Your task to perform on an android device: turn off priority inbox in the gmail app Image 0: 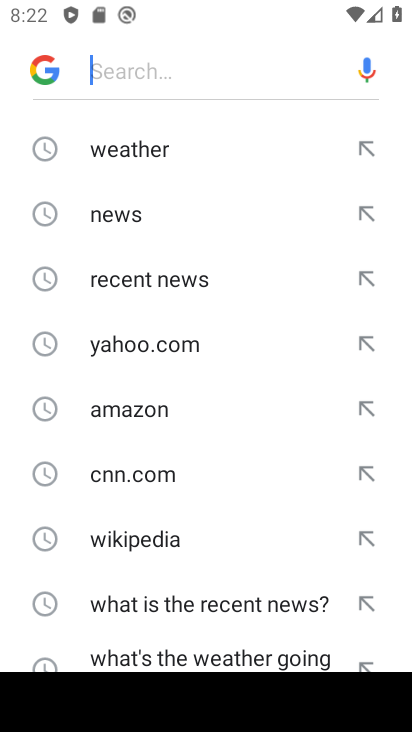
Step 0: press home button
Your task to perform on an android device: turn off priority inbox in the gmail app Image 1: 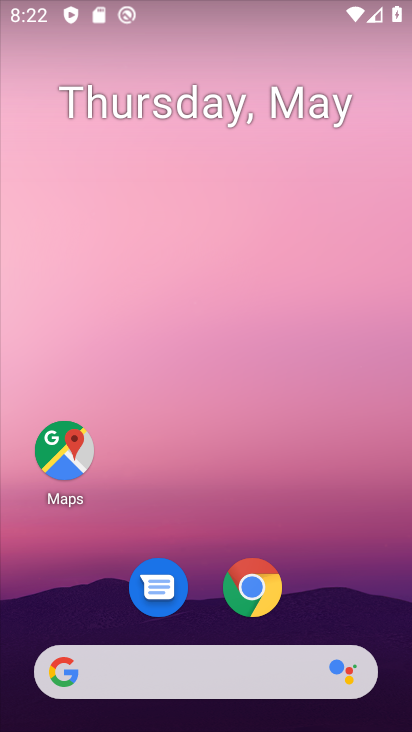
Step 1: drag from (127, 731) to (154, 30)
Your task to perform on an android device: turn off priority inbox in the gmail app Image 2: 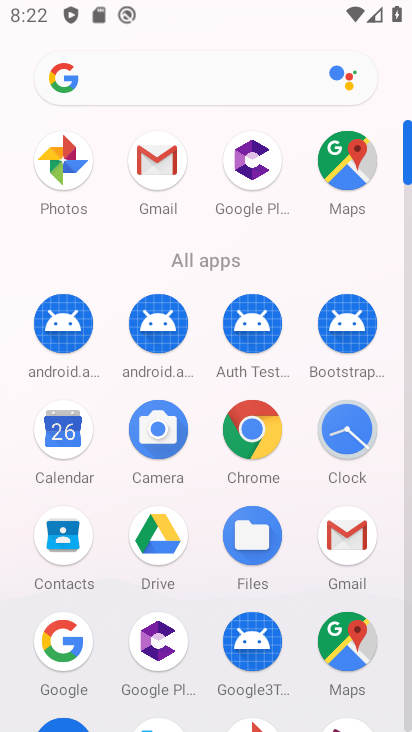
Step 2: click (348, 538)
Your task to perform on an android device: turn off priority inbox in the gmail app Image 3: 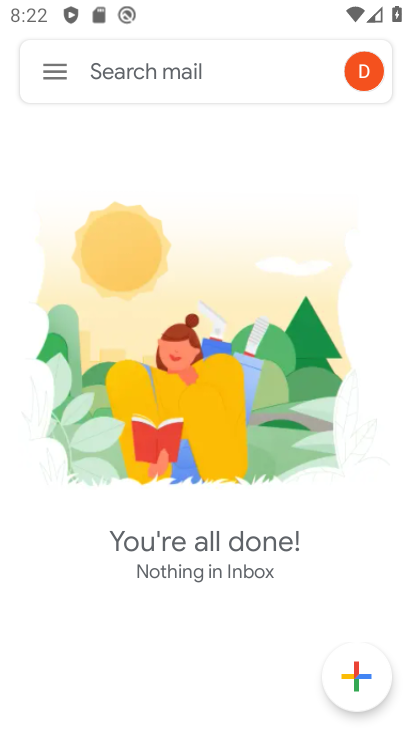
Step 3: click (63, 77)
Your task to perform on an android device: turn off priority inbox in the gmail app Image 4: 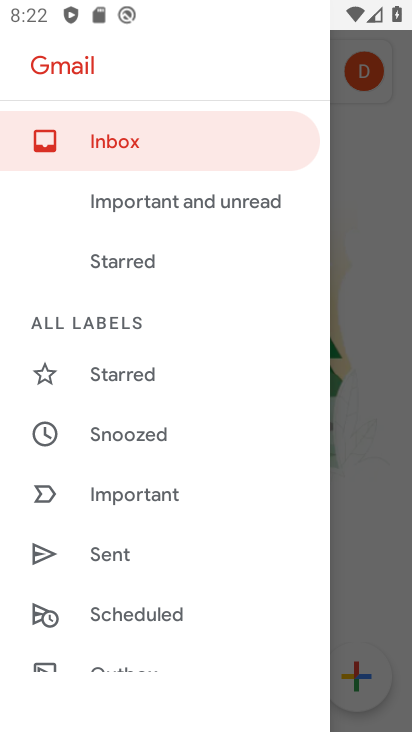
Step 4: drag from (219, 627) to (202, 215)
Your task to perform on an android device: turn off priority inbox in the gmail app Image 5: 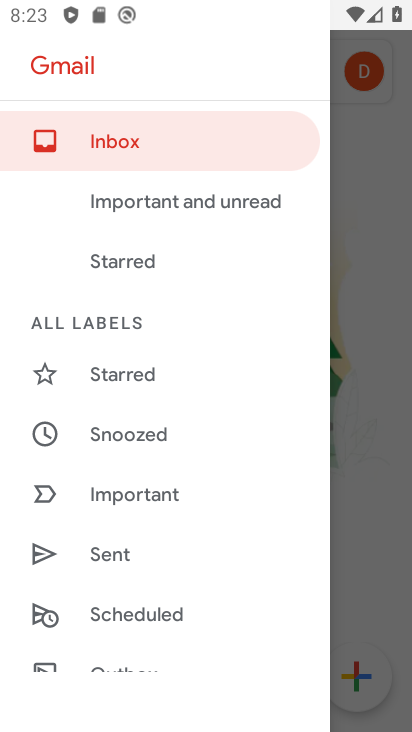
Step 5: drag from (85, 634) to (120, 130)
Your task to perform on an android device: turn off priority inbox in the gmail app Image 6: 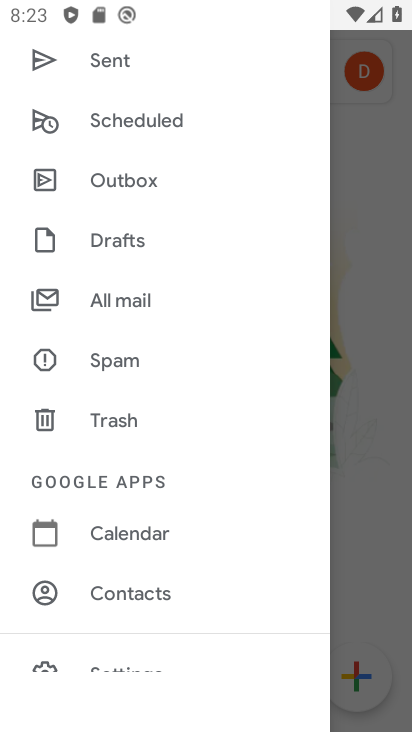
Step 6: drag from (230, 632) to (202, 382)
Your task to perform on an android device: turn off priority inbox in the gmail app Image 7: 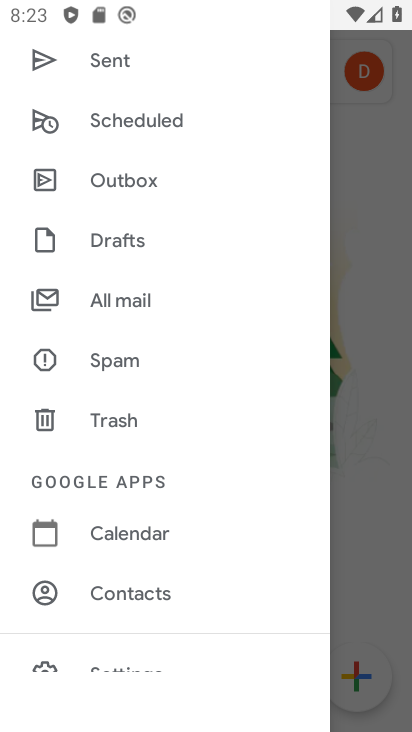
Step 7: drag from (71, 628) to (71, 322)
Your task to perform on an android device: turn off priority inbox in the gmail app Image 8: 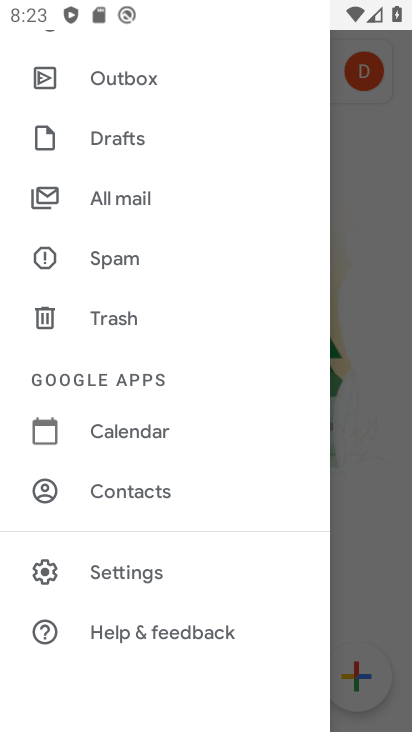
Step 8: click (123, 582)
Your task to perform on an android device: turn off priority inbox in the gmail app Image 9: 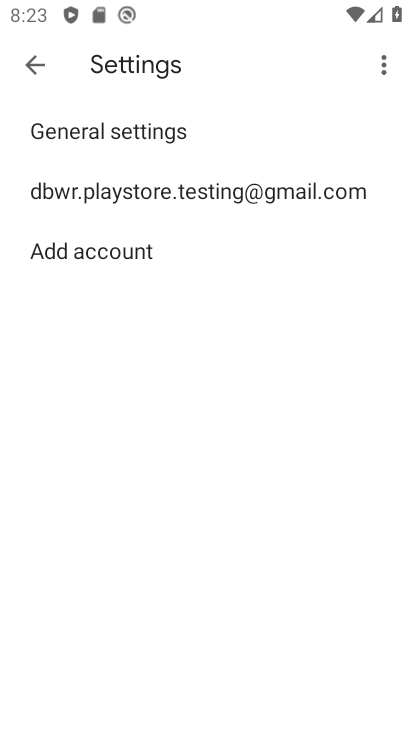
Step 9: click (255, 194)
Your task to perform on an android device: turn off priority inbox in the gmail app Image 10: 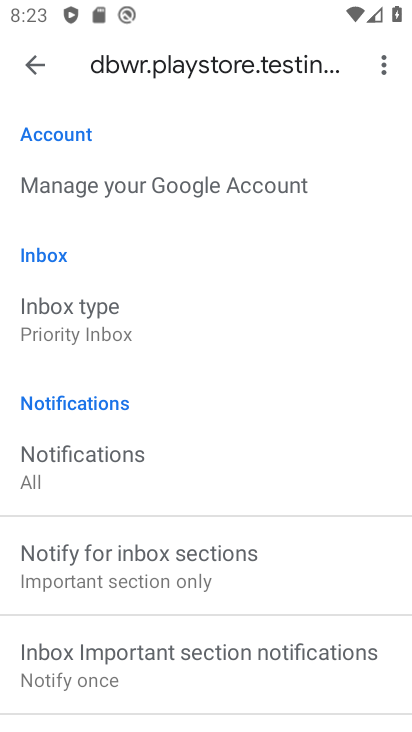
Step 10: click (129, 328)
Your task to perform on an android device: turn off priority inbox in the gmail app Image 11: 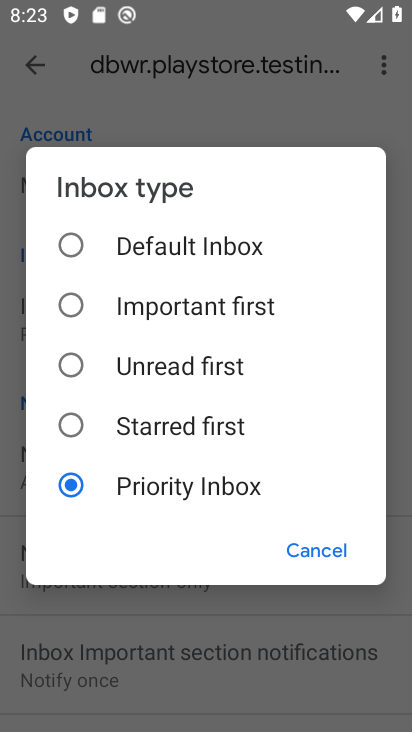
Step 11: click (139, 249)
Your task to perform on an android device: turn off priority inbox in the gmail app Image 12: 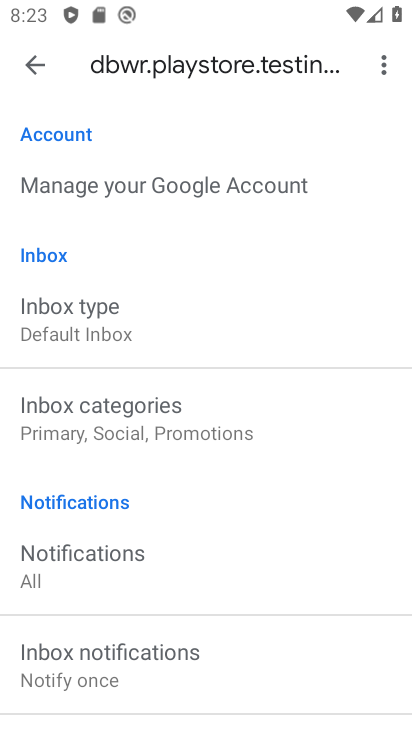
Step 12: task complete